Your task to perform on an android device: Go to Google maps Image 0: 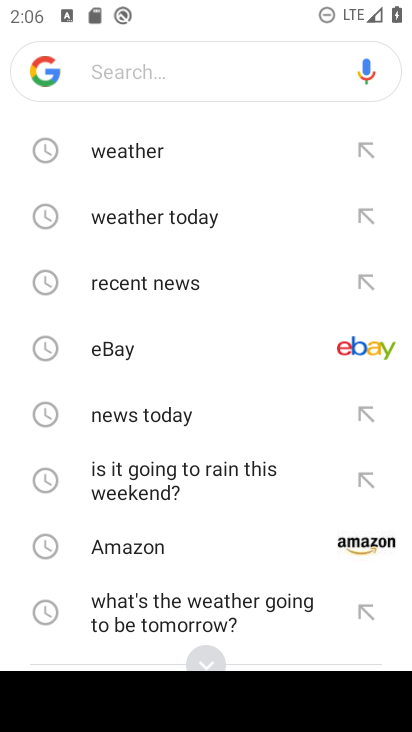
Step 0: press home button
Your task to perform on an android device: Go to Google maps Image 1: 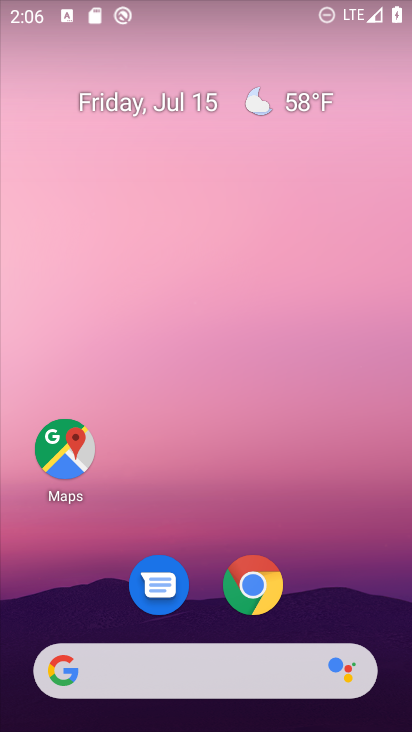
Step 1: click (66, 448)
Your task to perform on an android device: Go to Google maps Image 2: 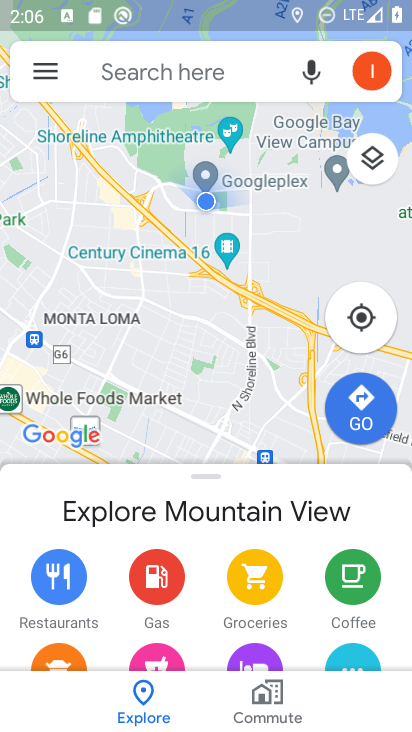
Step 2: task complete